Your task to perform on an android device: Open Amazon Image 0: 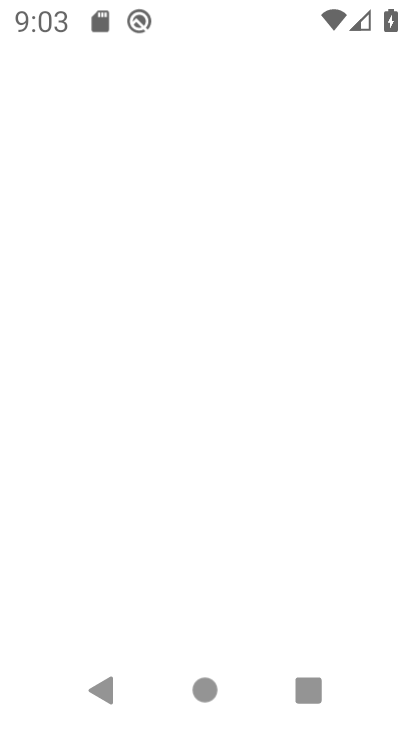
Step 0: drag from (257, 643) to (269, 513)
Your task to perform on an android device: Open Amazon Image 1: 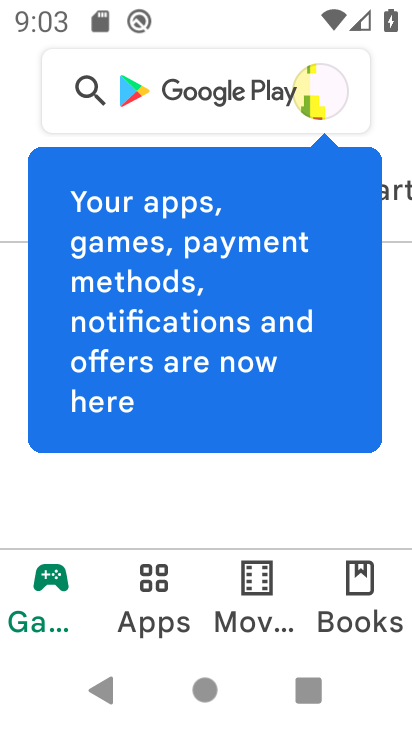
Step 1: press home button
Your task to perform on an android device: Open Amazon Image 2: 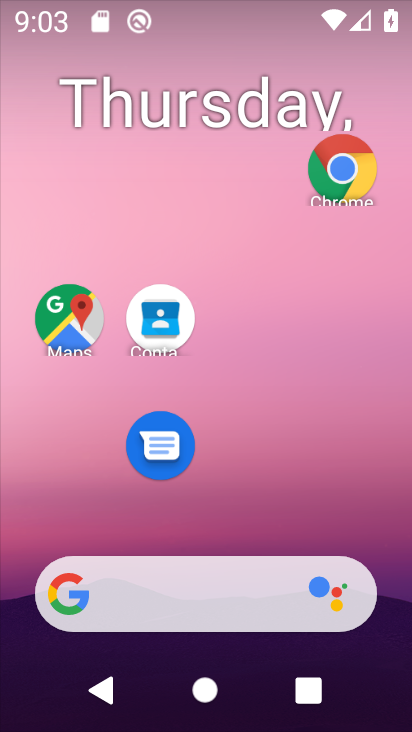
Step 2: drag from (219, 629) to (221, 119)
Your task to perform on an android device: Open Amazon Image 3: 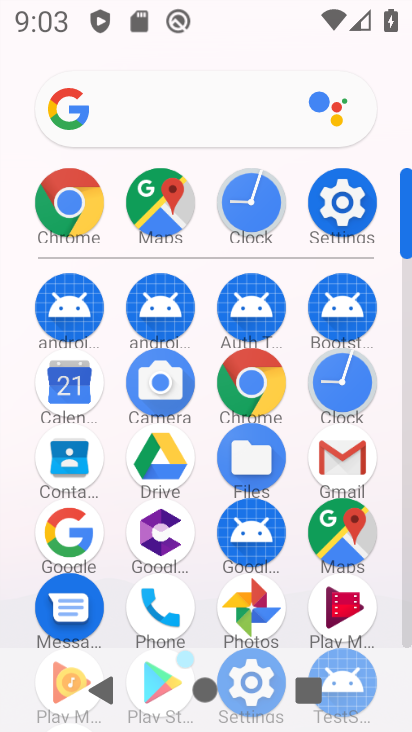
Step 3: click (55, 194)
Your task to perform on an android device: Open Amazon Image 4: 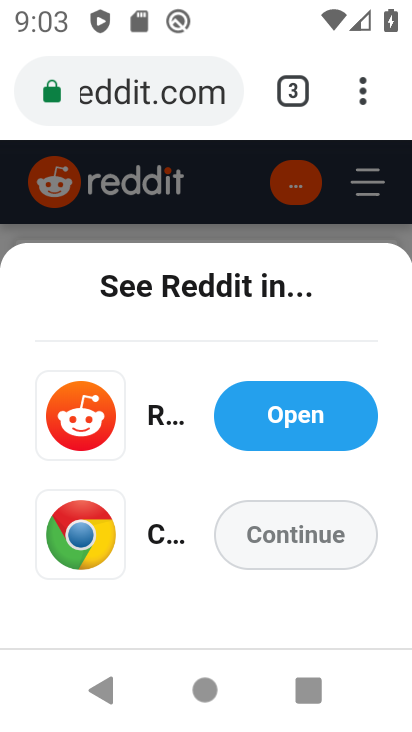
Step 4: click (160, 87)
Your task to perform on an android device: Open Amazon Image 5: 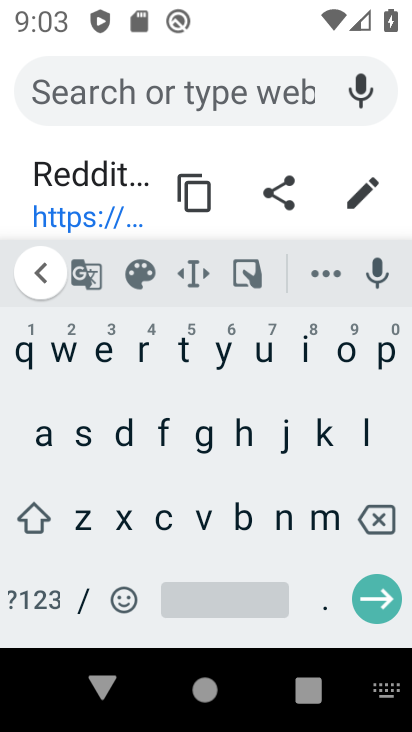
Step 5: click (47, 433)
Your task to perform on an android device: Open Amazon Image 6: 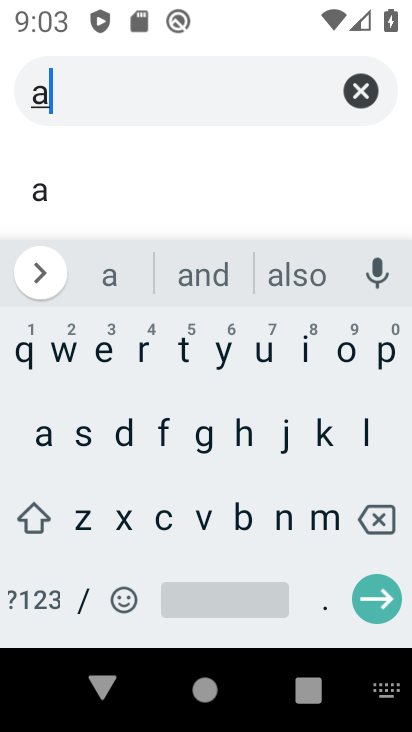
Step 6: click (322, 520)
Your task to perform on an android device: Open Amazon Image 7: 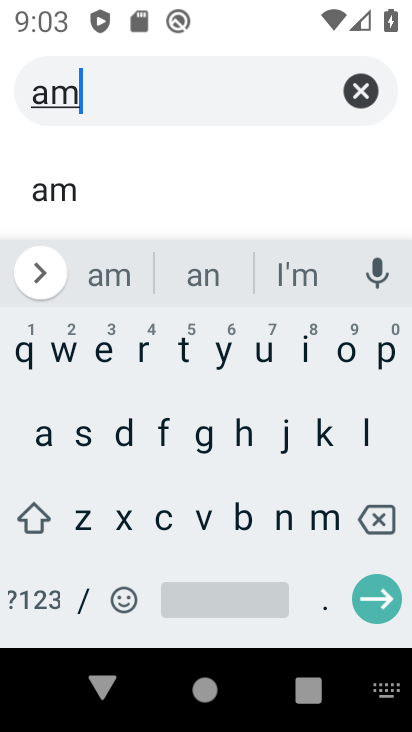
Step 7: click (38, 444)
Your task to perform on an android device: Open Amazon Image 8: 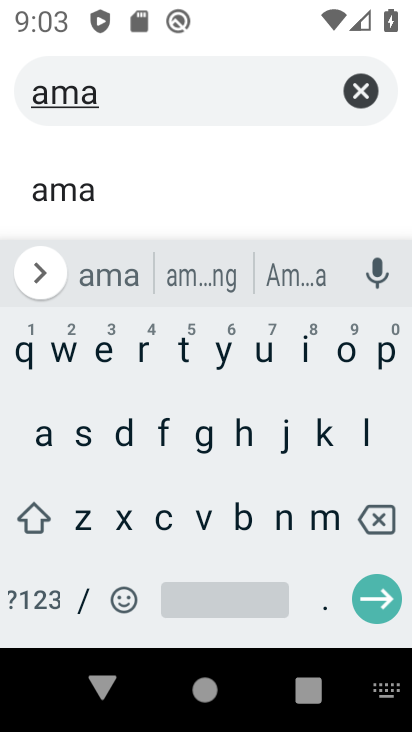
Step 8: click (76, 527)
Your task to perform on an android device: Open Amazon Image 9: 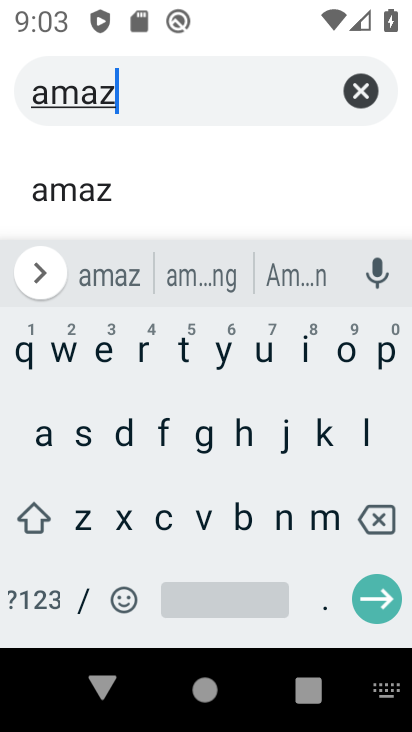
Step 9: click (337, 355)
Your task to perform on an android device: Open Amazon Image 10: 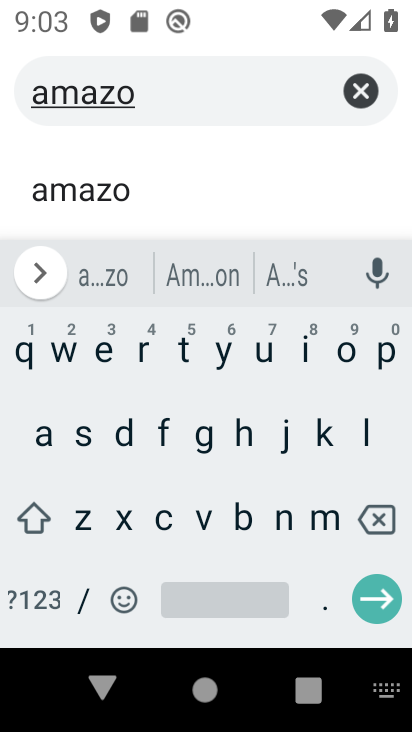
Step 10: click (284, 508)
Your task to perform on an android device: Open Amazon Image 11: 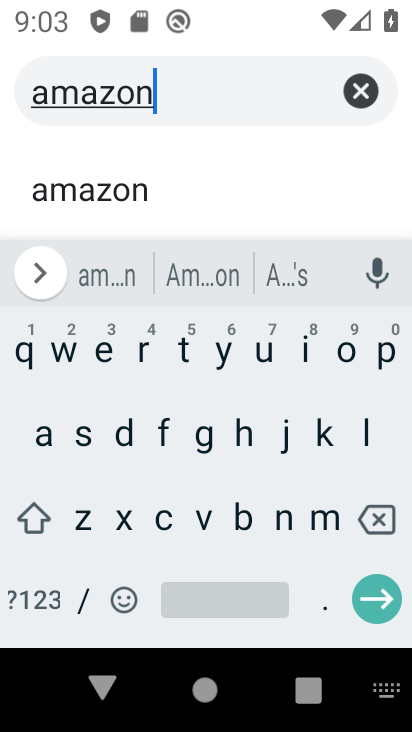
Step 11: click (372, 595)
Your task to perform on an android device: Open Amazon Image 12: 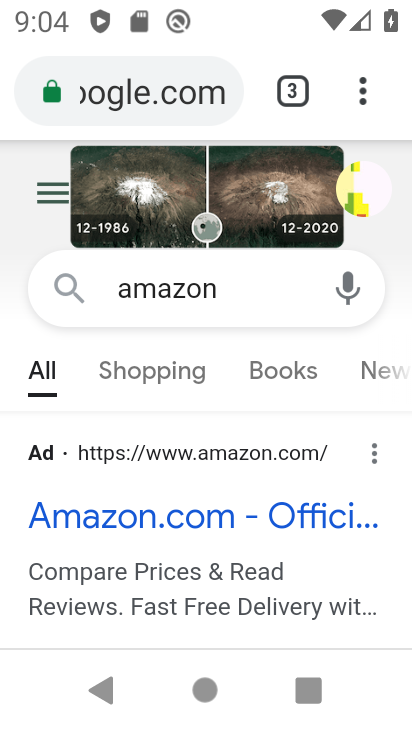
Step 12: click (139, 524)
Your task to perform on an android device: Open Amazon Image 13: 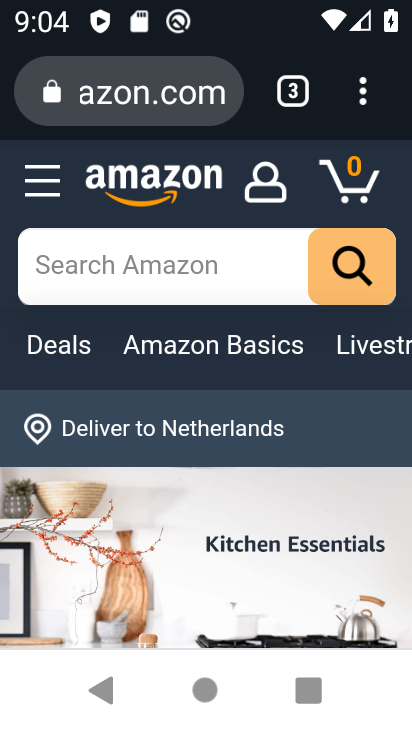
Step 13: task complete